Your task to perform on an android device: turn pop-ups on in chrome Image 0: 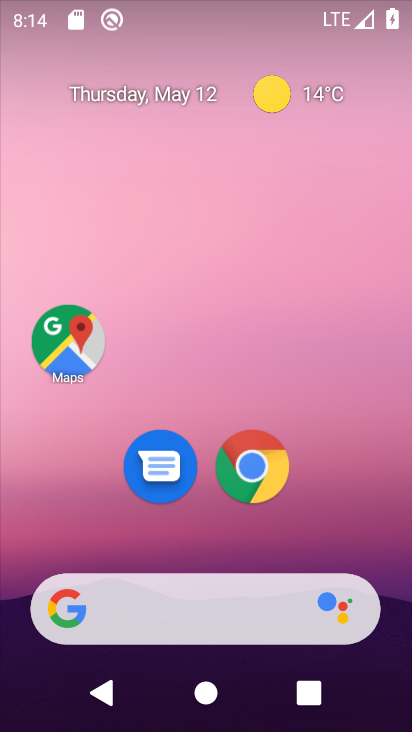
Step 0: click (251, 463)
Your task to perform on an android device: turn pop-ups on in chrome Image 1: 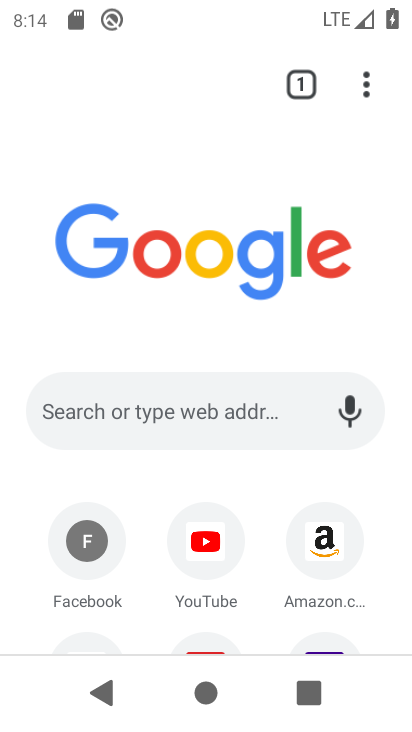
Step 1: click (363, 80)
Your task to perform on an android device: turn pop-ups on in chrome Image 2: 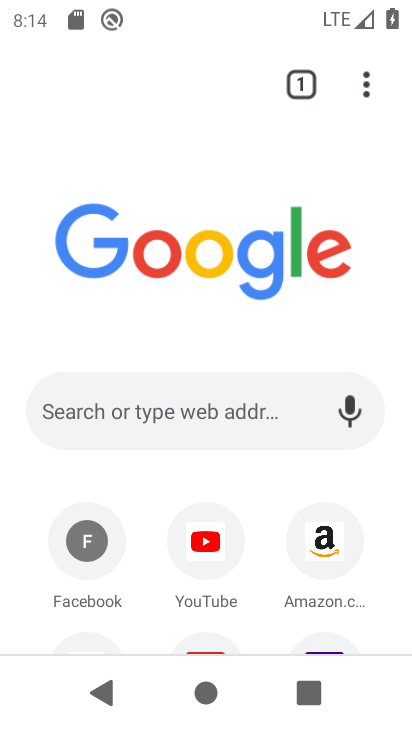
Step 2: click (366, 80)
Your task to perform on an android device: turn pop-ups on in chrome Image 3: 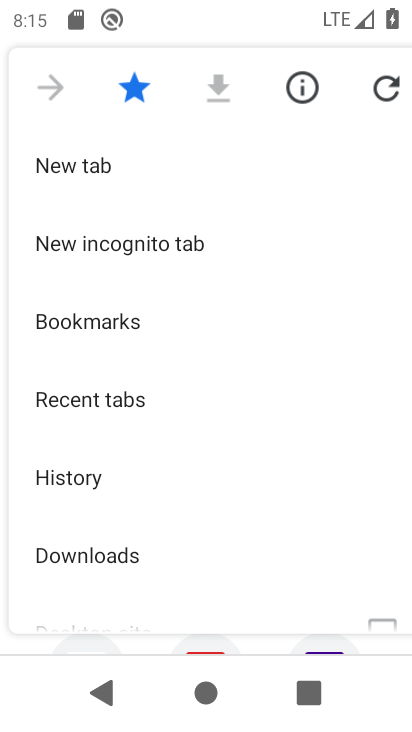
Step 3: drag from (182, 555) to (193, 73)
Your task to perform on an android device: turn pop-ups on in chrome Image 4: 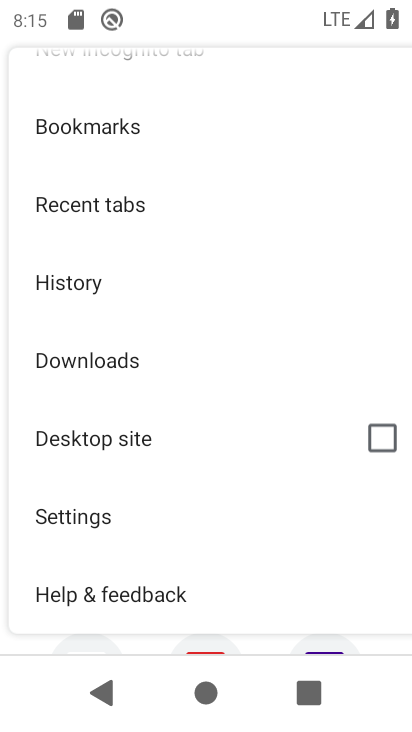
Step 4: click (116, 519)
Your task to perform on an android device: turn pop-ups on in chrome Image 5: 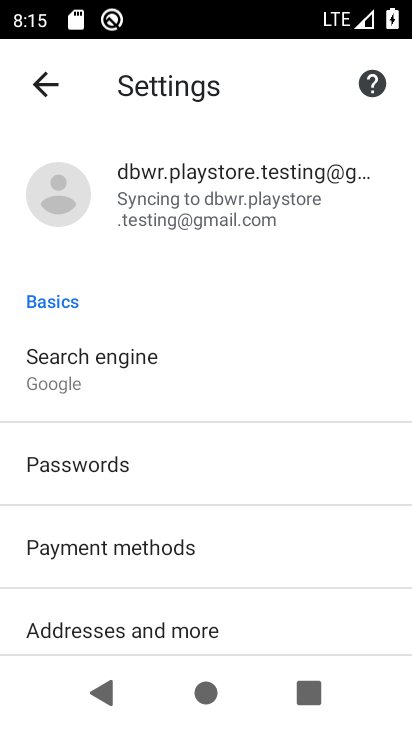
Step 5: drag from (221, 614) to (264, 93)
Your task to perform on an android device: turn pop-ups on in chrome Image 6: 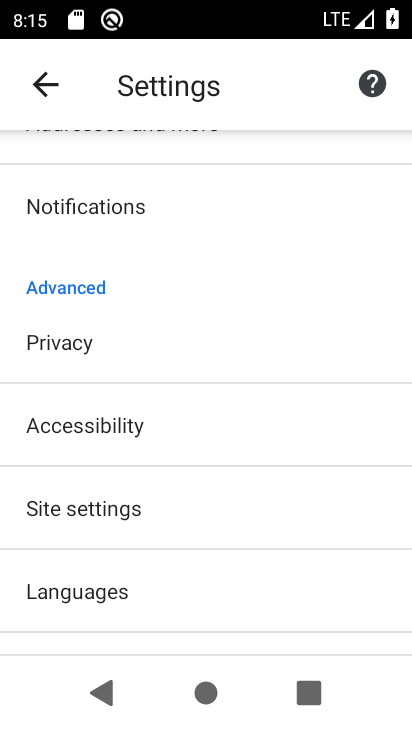
Step 6: click (154, 506)
Your task to perform on an android device: turn pop-ups on in chrome Image 7: 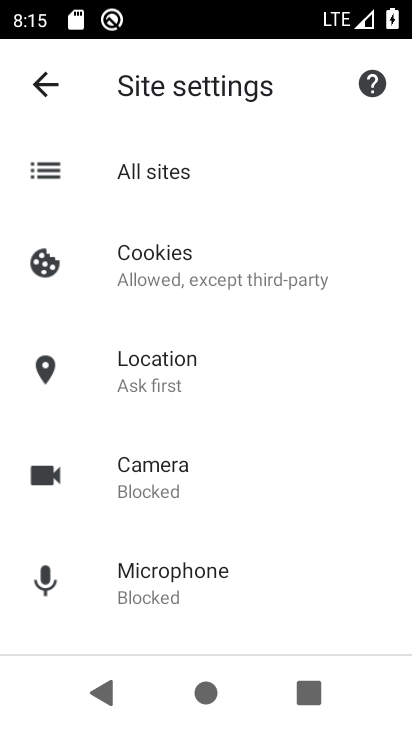
Step 7: drag from (192, 583) to (214, 128)
Your task to perform on an android device: turn pop-ups on in chrome Image 8: 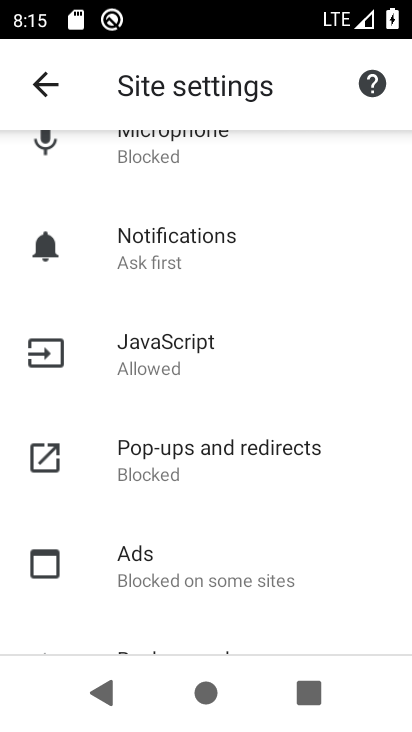
Step 8: click (177, 459)
Your task to perform on an android device: turn pop-ups on in chrome Image 9: 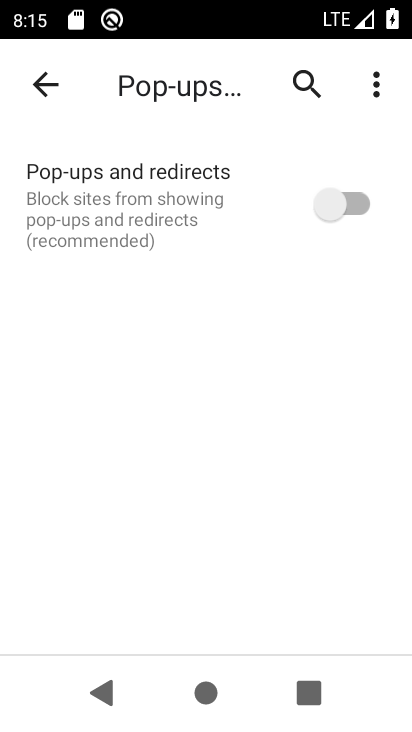
Step 9: click (350, 199)
Your task to perform on an android device: turn pop-ups on in chrome Image 10: 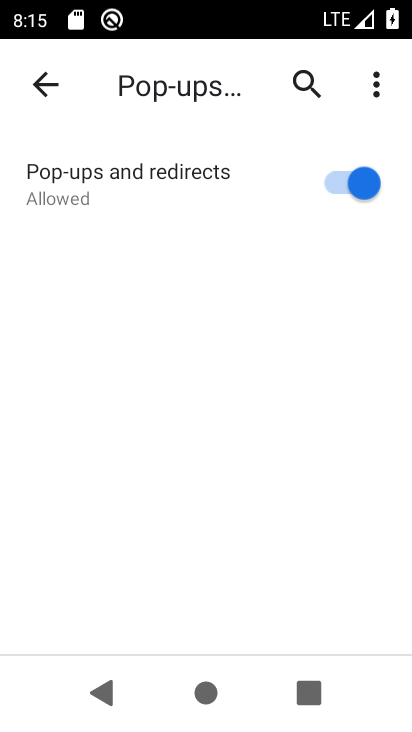
Step 10: task complete